Your task to perform on an android device: Search for vegetarian restaurants on Maps Image 0: 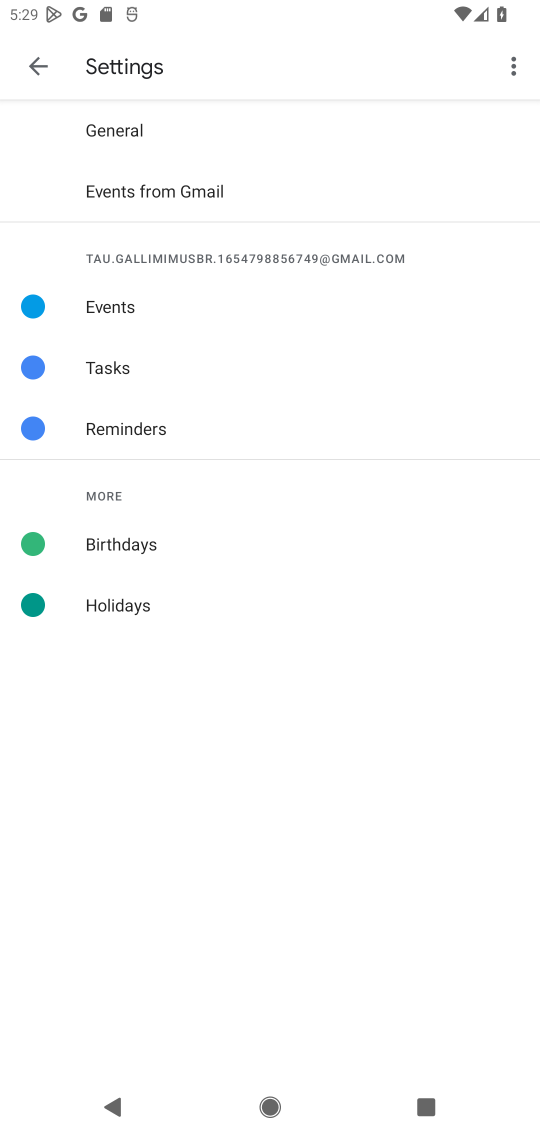
Step 0: press home button
Your task to perform on an android device: Search for vegetarian restaurants on Maps Image 1: 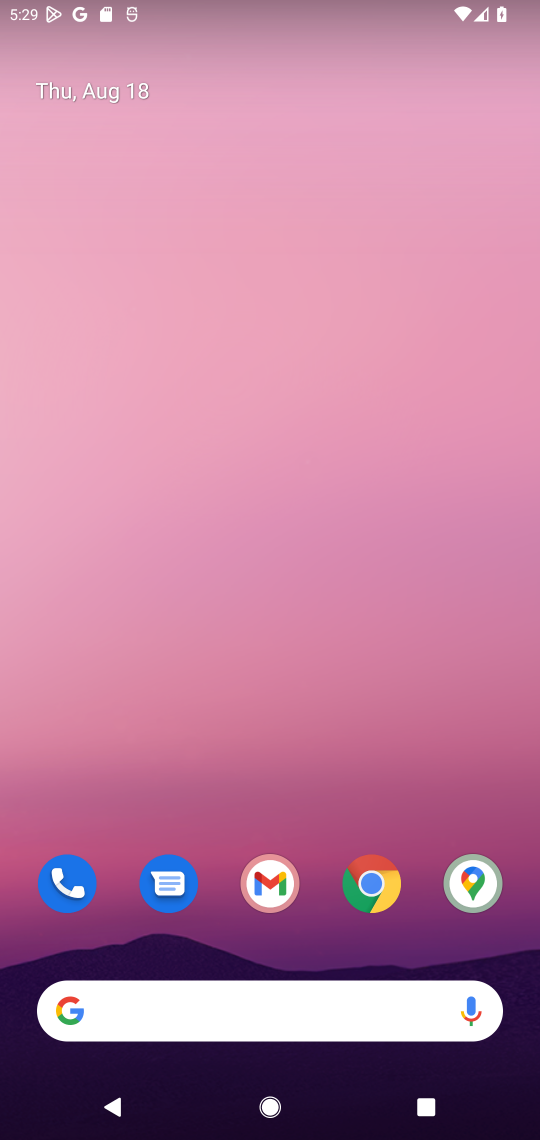
Step 1: drag from (319, 893) to (359, 118)
Your task to perform on an android device: Search for vegetarian restaurants on Maps Image 2: 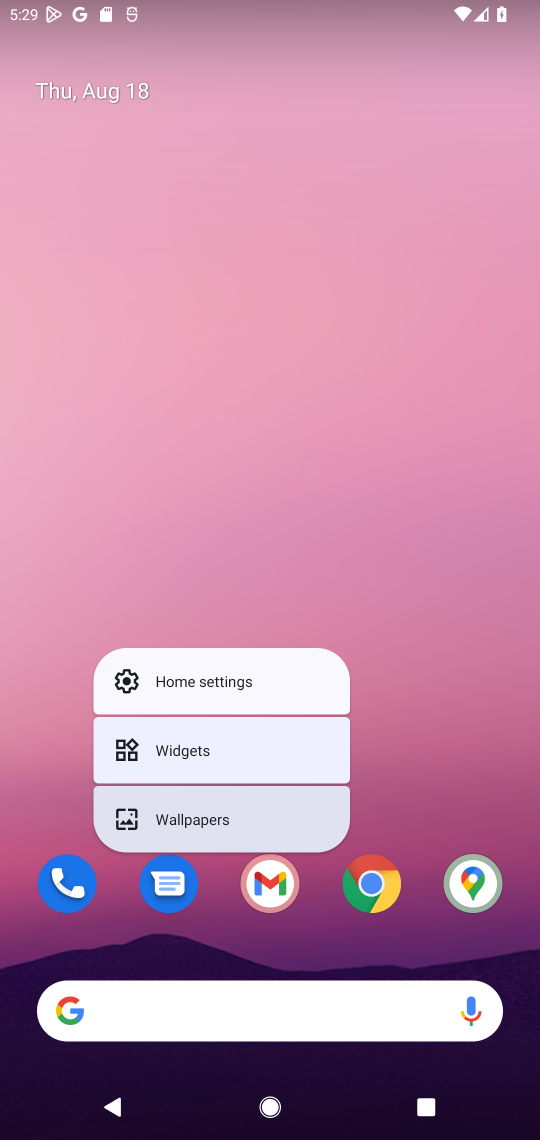
Step 2: click (398, 737)
Your task to perform on an android device: Search for vegetarian restaurants on Maps Image 3: 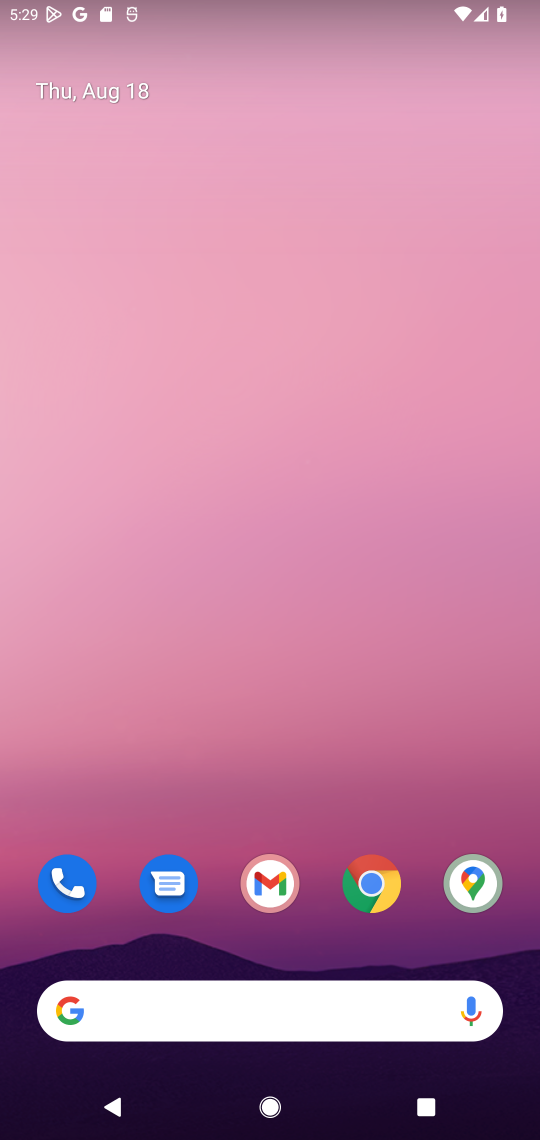
Step 3: drag from (309, 938) to (412, 20)
Your task to perform on an android device: Search for vegetarian restaurants on Maps Image 4: 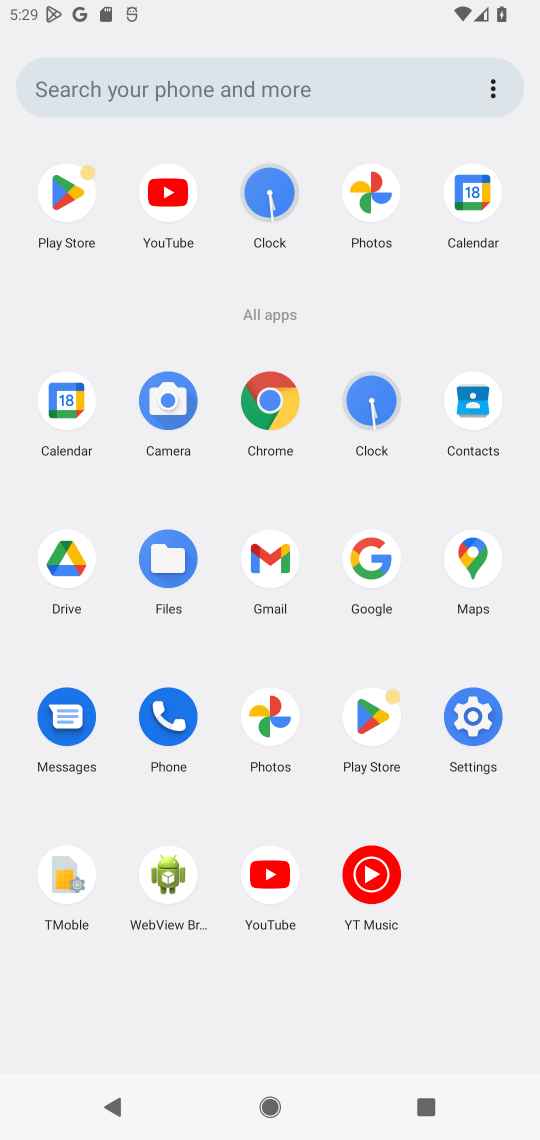
Step 4: click (458, 548)
Your task to perform on an android device: Search for vegetarian restaurants on Maps Image 5: 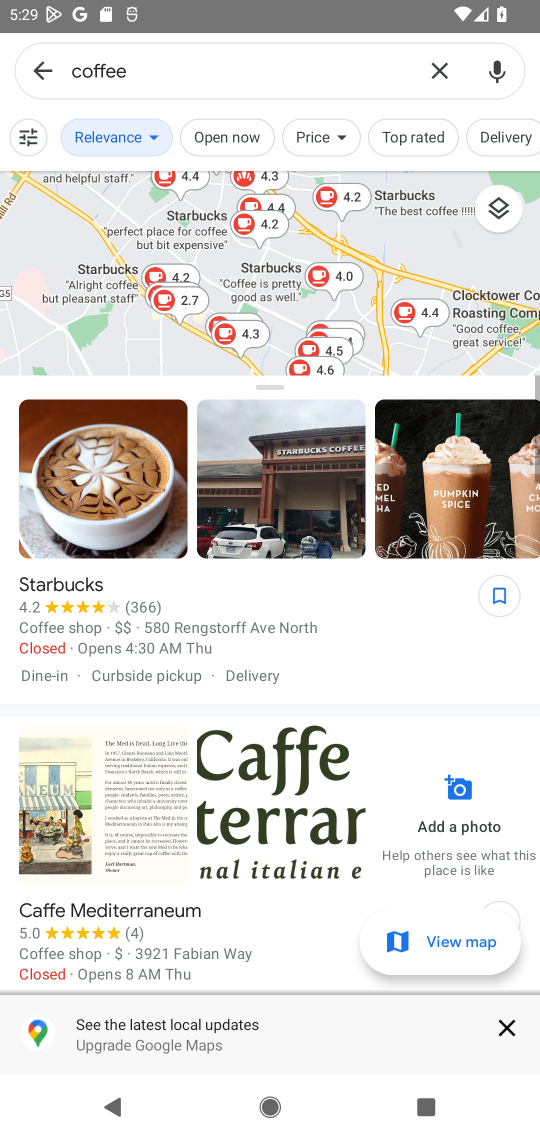
Step 5: click (442, 62)
Your task to perform on an android device: Search for vegetarian restaurants on Maps Image 6: 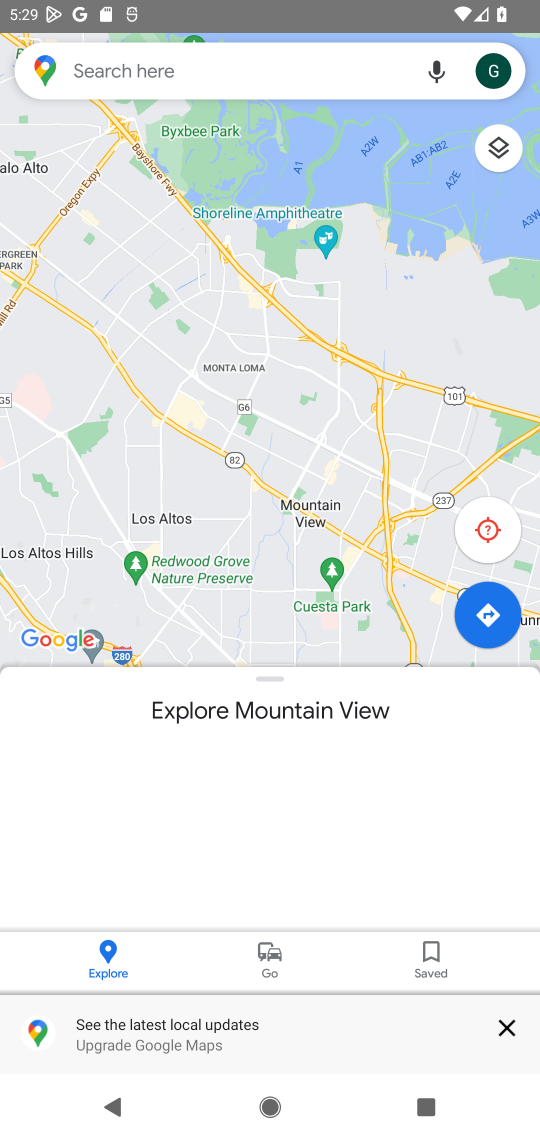
Step 6: click (104, 73)
Your task to perform on an android device: Search for vegetarian restaurants on Maps Image 7: 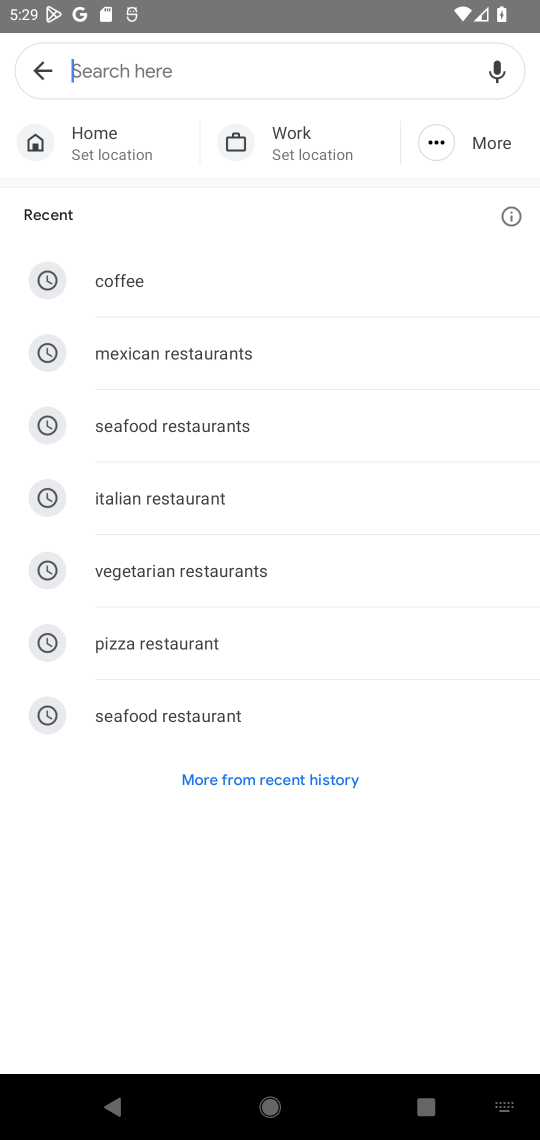
Step 7: type " vegetarian restaurants"
Your task to perform on an android device: Search for vegetarian restaurants on Maps Image 8: 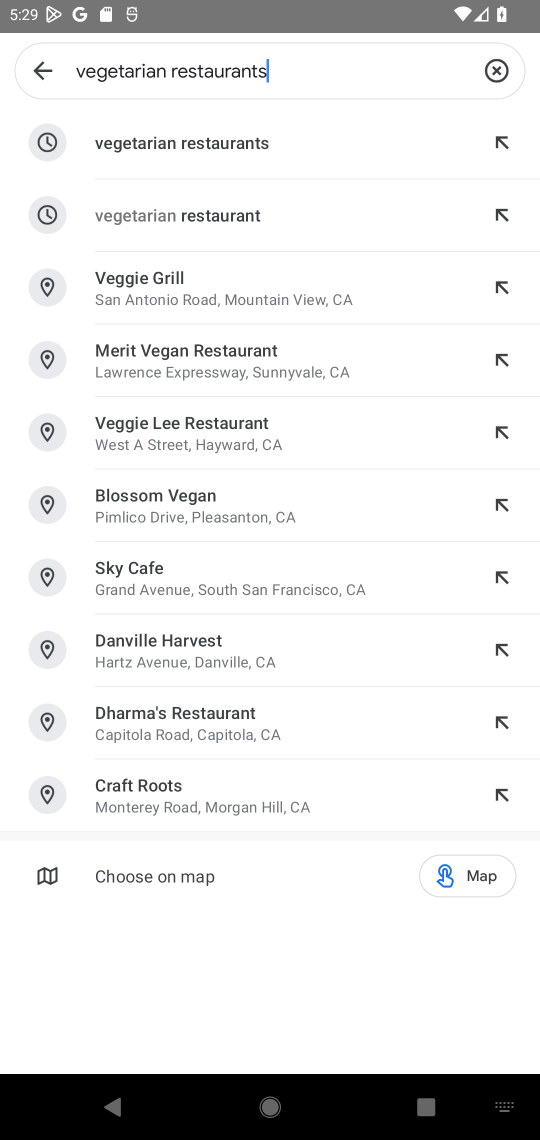
Step 8: click (225, 137)
Your task to perform on an android device: Search for vegetarian restaurants on Maps Image 9: 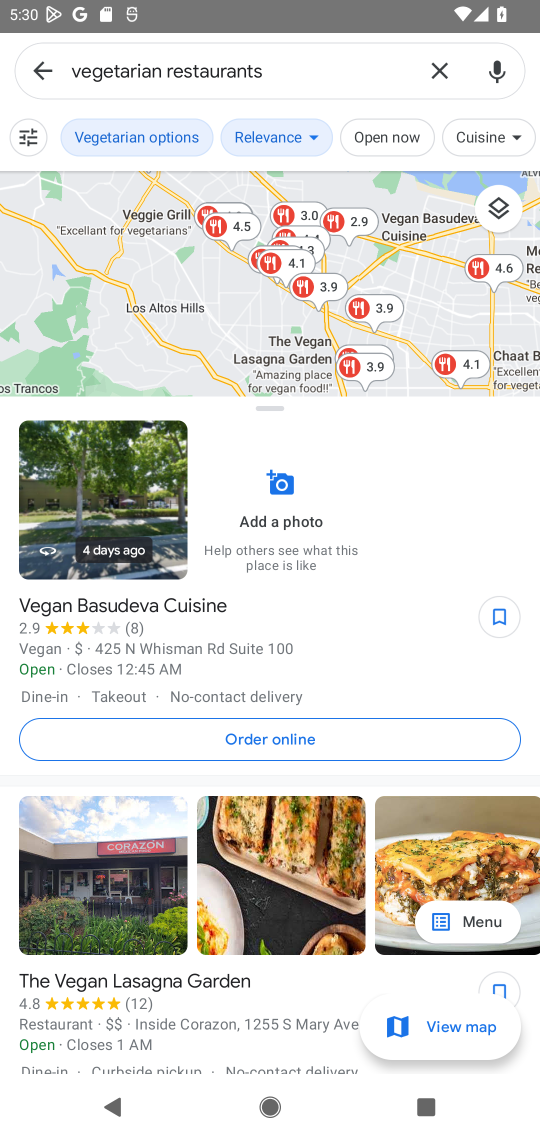
Step 9: task complete